Your task to perform on an android device: turn off notifications settings in the gmail app Image 0: 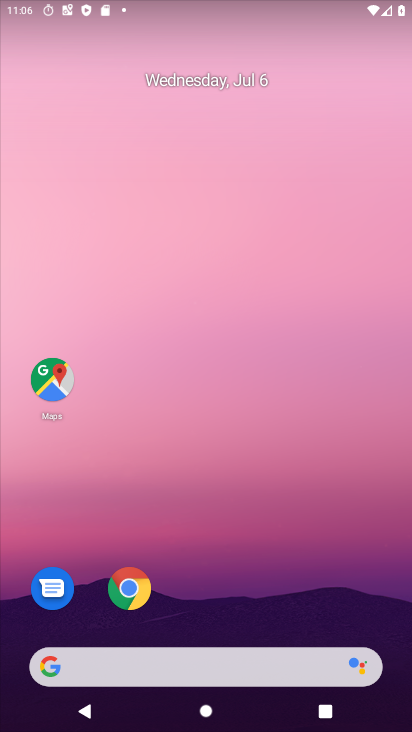
Step 0: drag from (222, 698) to (215, 647)
Your task to perform on an android device: turn off notifications settings in the gmail app Image 1: 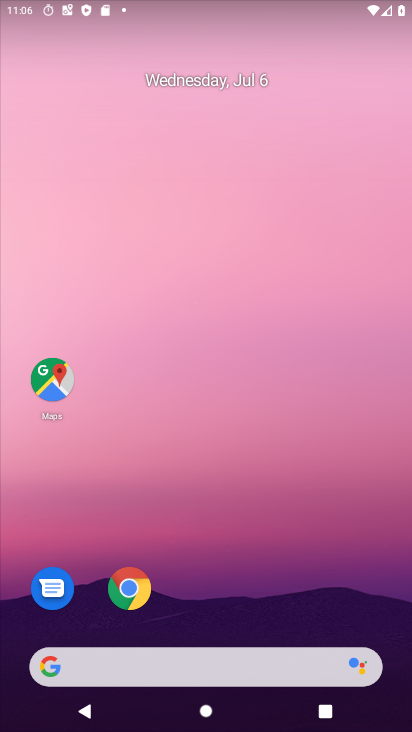
Step 1: drag from (204, 135) to (204, 67)
Your task to perform on an android device: turn off notifications settings in the gmail app Image 2: 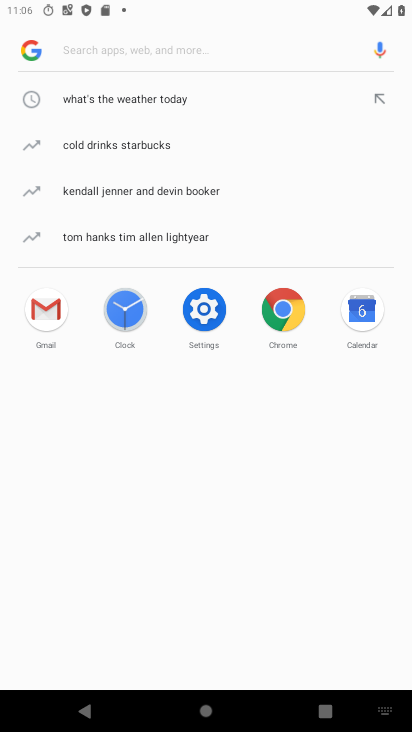
Step 2: press home button
Your task to perform on an android device: turn off notifications settings in the gmail app Image 3: 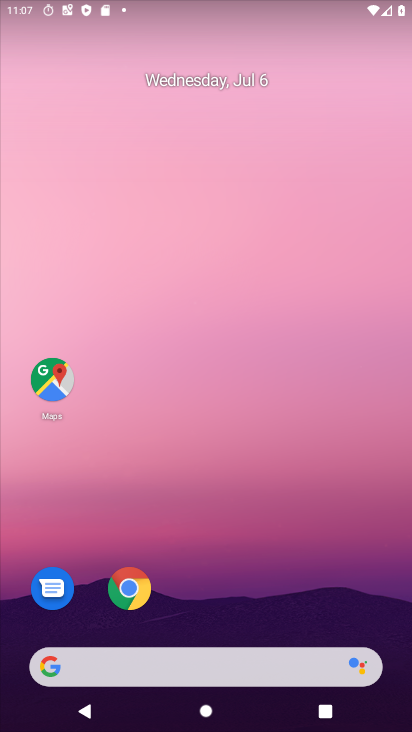
Step 3: drag from (226, 657) to (221, 620)
Your task to perform on an android device: turn off notifications settings in the gmail app Image 4: 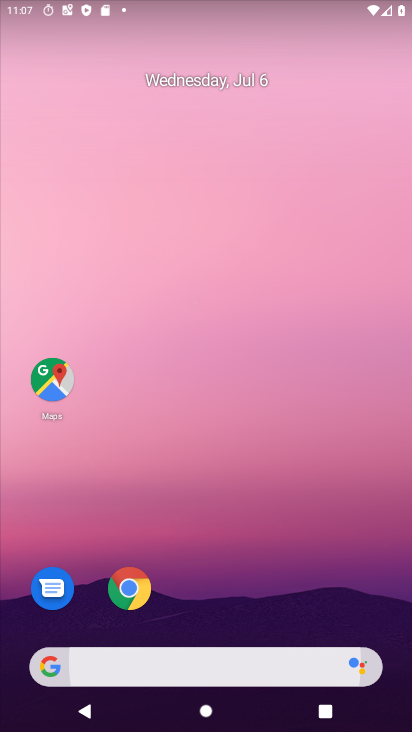
Step 4: drag from (201, 191) to (201, 119)
Your task to perform on an android device: turn off notifications settings in the gmail app Image 5: 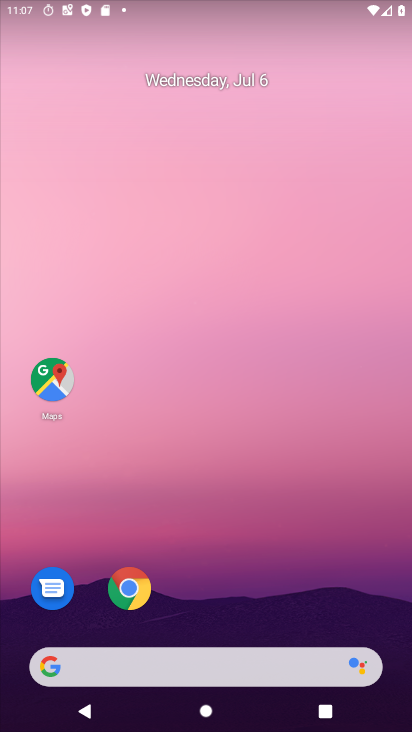
Step 5: drag from (245, 716) to (223, 85)
Your task to perform on an android device: turn off notifications settings in the gmail app Image 6: 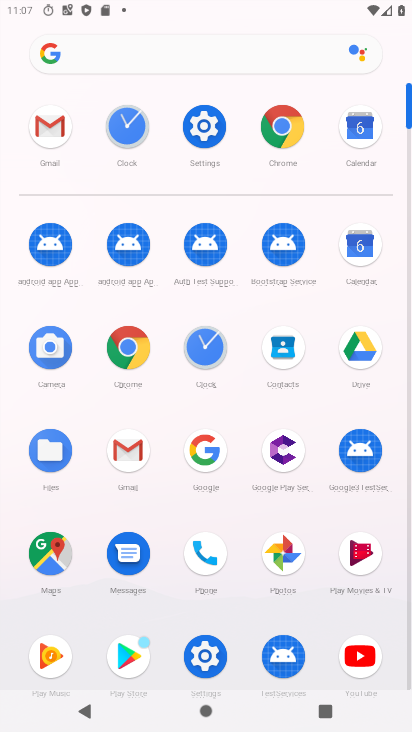
Step 6: click (48, 130)
Your task to perform on an android device: turn off notifications settings in the gmail app Image 7: 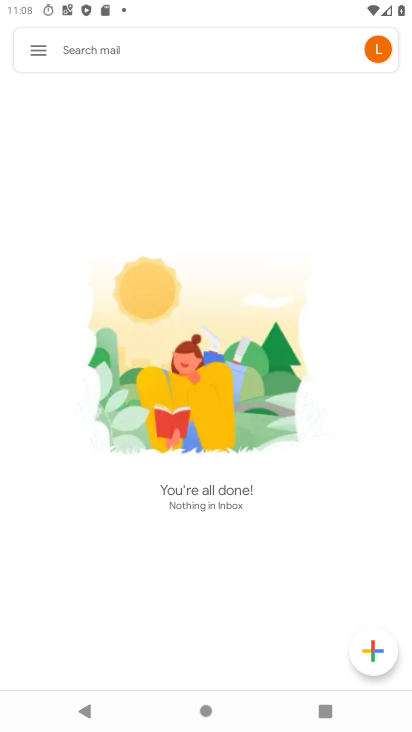
Step 7: click (34, 44)
Your task to perform on an android device: turn off notifications settings in the gmail app Image 8: 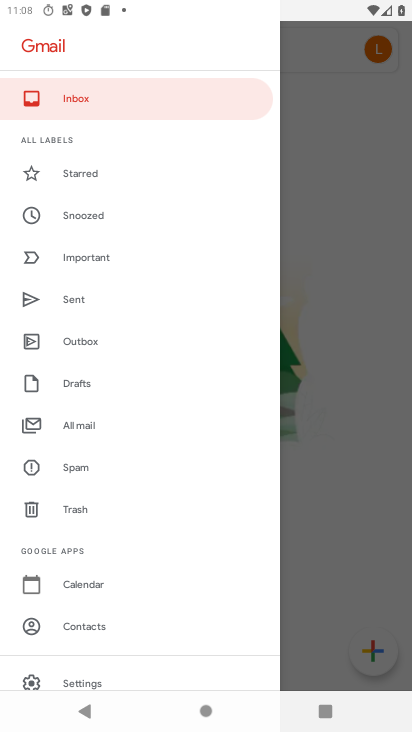
Step 8: click (92, 678)
Your task to perform on an android device: turn off notifications settings in the gmail app Image 9: 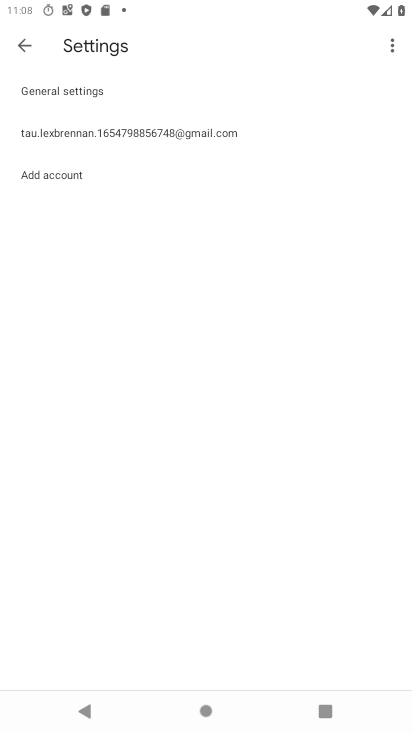
Step 9: click (120, 130)
Your task to perform on an android device: turn off notifications settings in the gmail app Image 10: 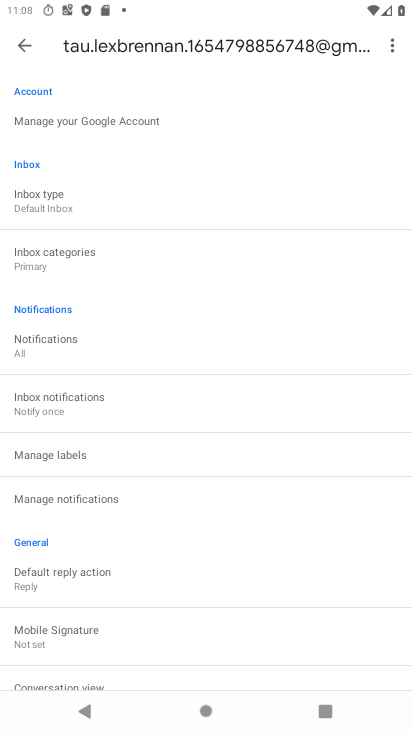
Step 10: click (48, 337)
Your task to perform on an android device: turn off notifications settings in the gmail app Image 11: 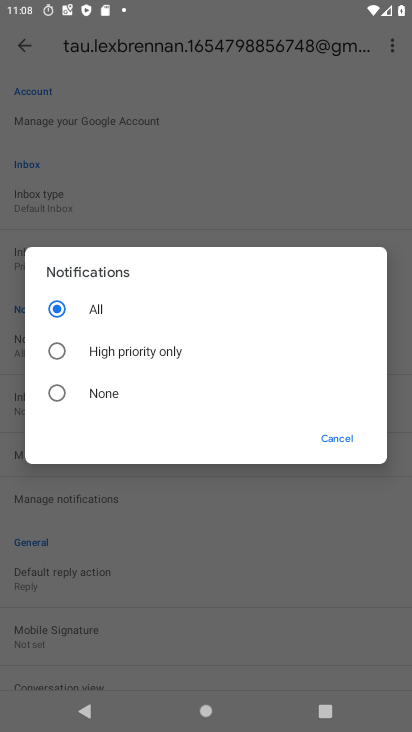
Step 11: click (60, 390)
Your task to perform on an android device: turn off notifications settings in the gmail app Image 12: 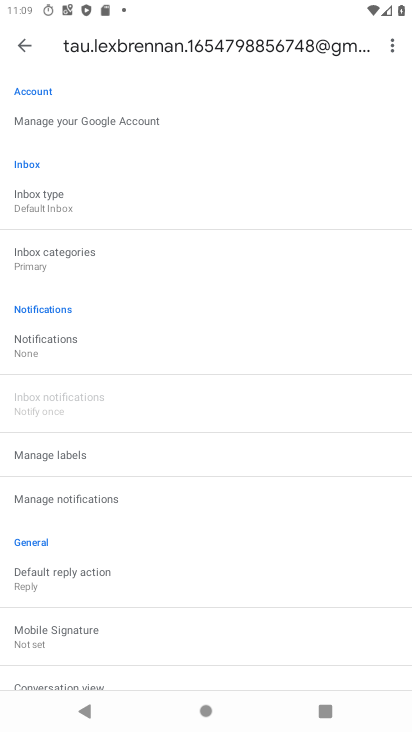
Step 12: task complete